Your task to perform on an android device: set default search engine in the chrome app Image 0: 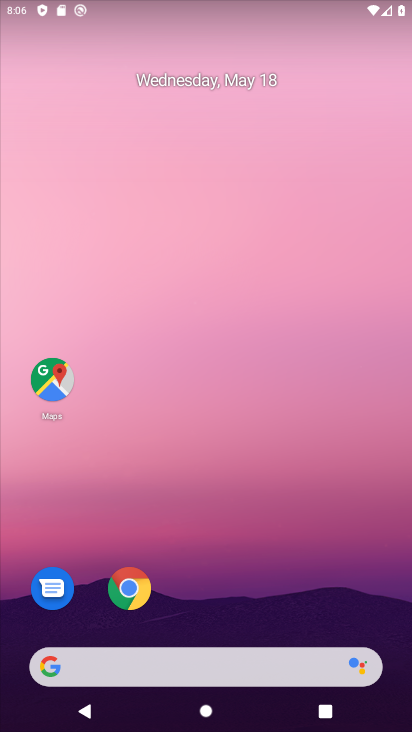
Step 0: click (143, 589)
Your task to perform on an android device: set default search engine in the chrome app Image 1: 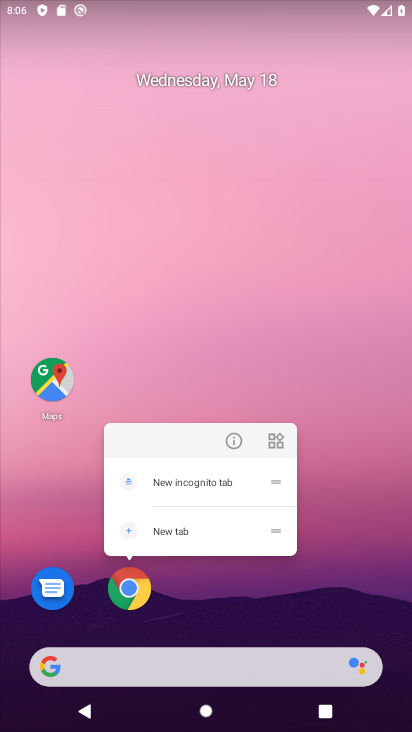
Step 1: click (128, 592)
Your task to perform on an android device: set default search engine in the chrome app Image 2: 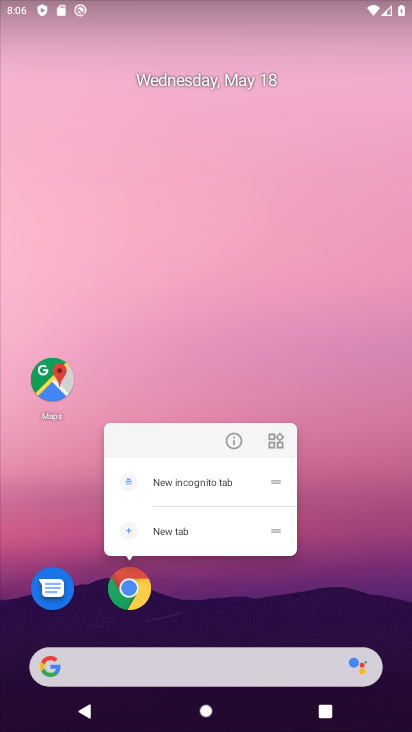
Step 2: click (128, 592)
Your task to perform on an android device: set default search engine in the chrome app Image 3: 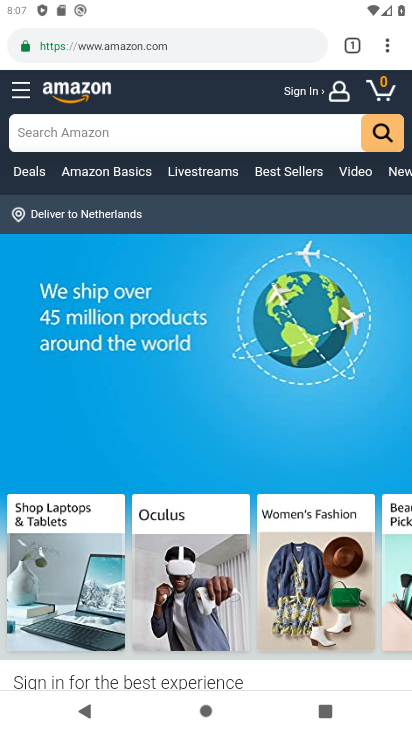
Step 3: click (388, 39)
Your task to perform on an android device: set default search engine in the chrome app Image 4: 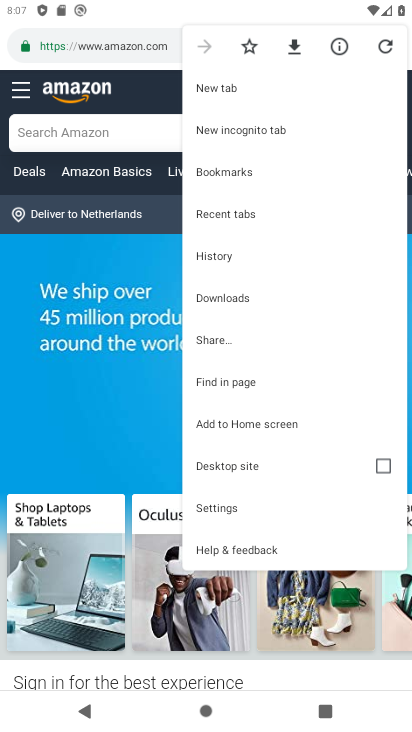
Step 4: click (202, 499)
Your task to perform on an android device: set default search engine in the chrome app Image 5: 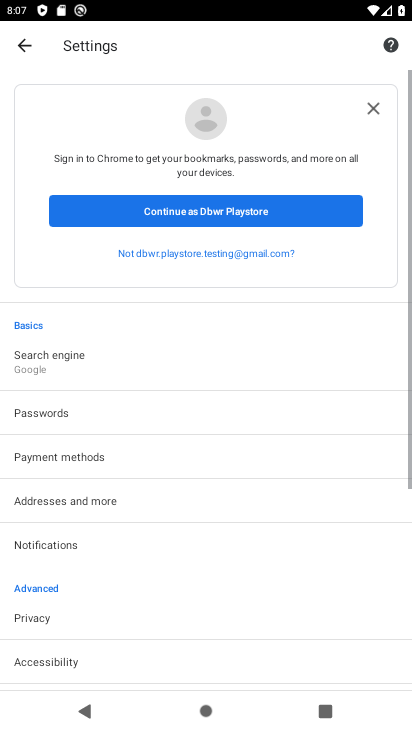
Step 5: click (36, 340)
Your task to perform on an android device: set default search engine in the chrome app Image 6: 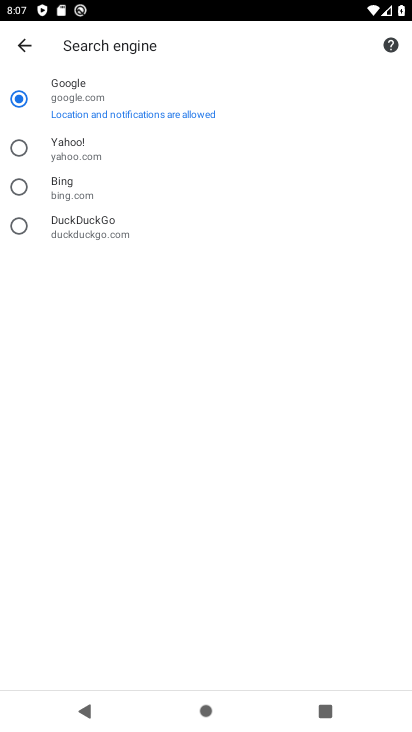
Step 6: click (11, 139)
Your task to perform on an android device: set default search engine in the chrome app Image 7: 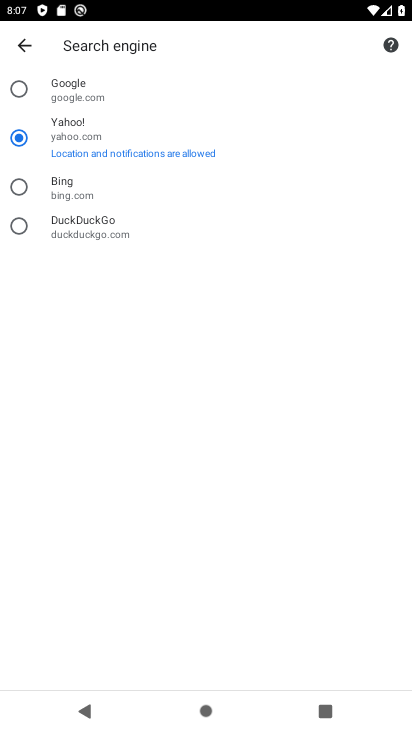
Step 7: task complete